Your task to perform on an android device: star an email in the gmail app Image 0: 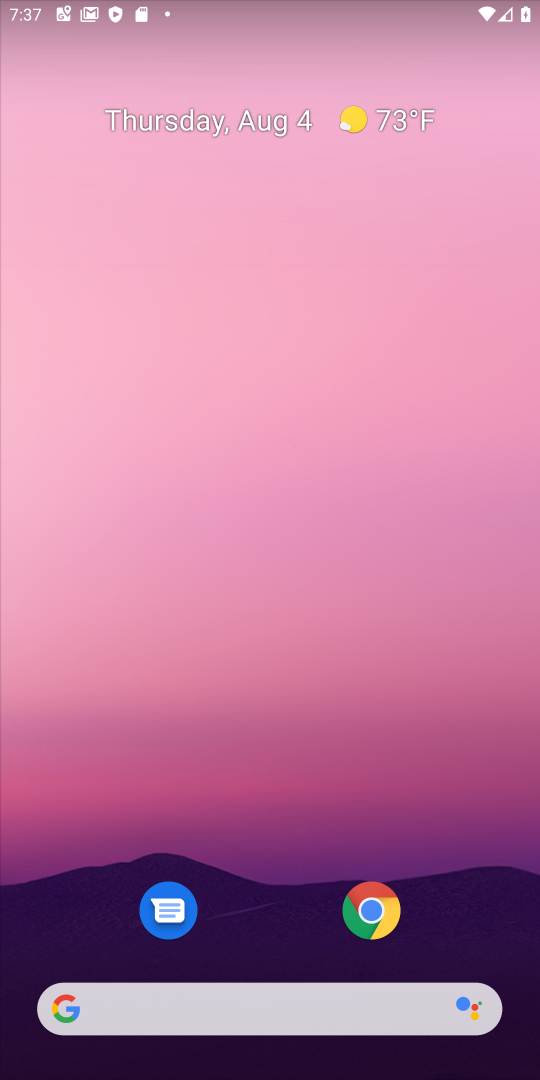
Step 0: drag from (267, 879) to (289, 162)
Your task to perform on an android device: star an email in the gmail app Image 1: 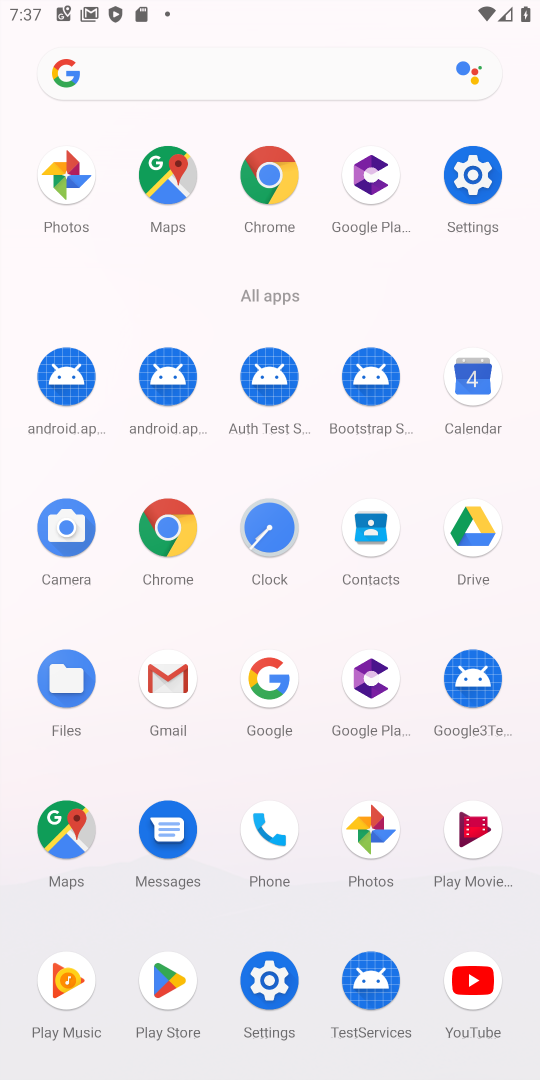
Step 1: click (165, 675)
Your task to perform on an android device: star an email in the gmail app Image 2: 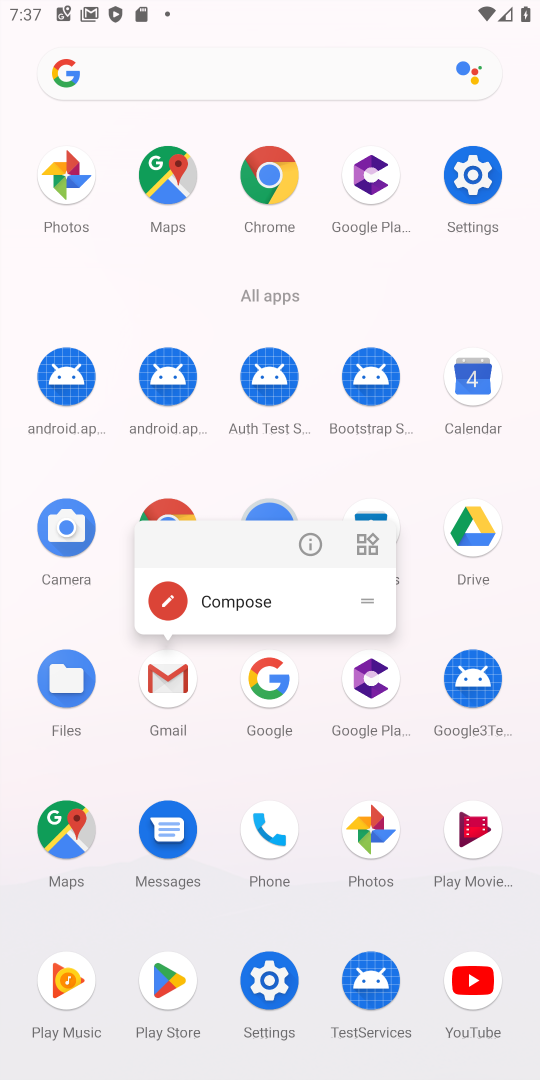
Step 2: click (170, 686)
Your task to perform on an android device: star an email in the gmail app Image 3: 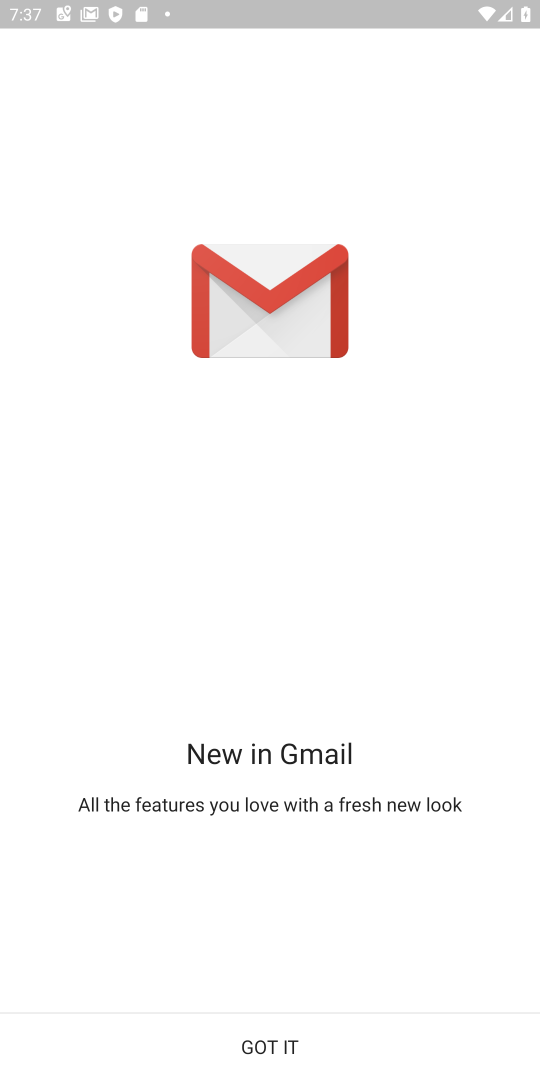
Step 3: click (308, 1040)
Your task to perform on an android device: star an email in the gmail app Image 4: 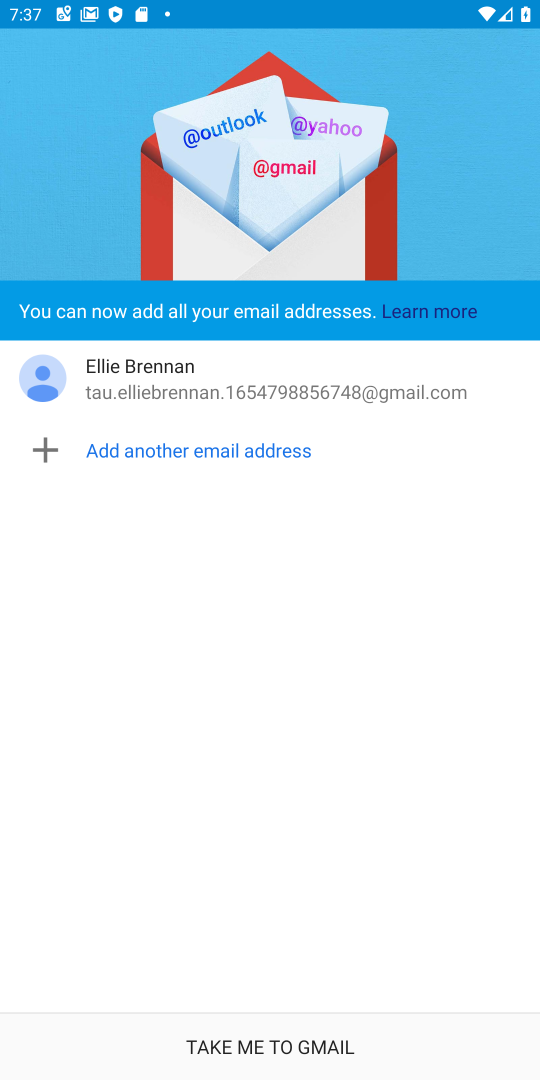
Step 4: click (308, 1040)
Your task to perform on an android device: star an email in the gmail app Image 5: 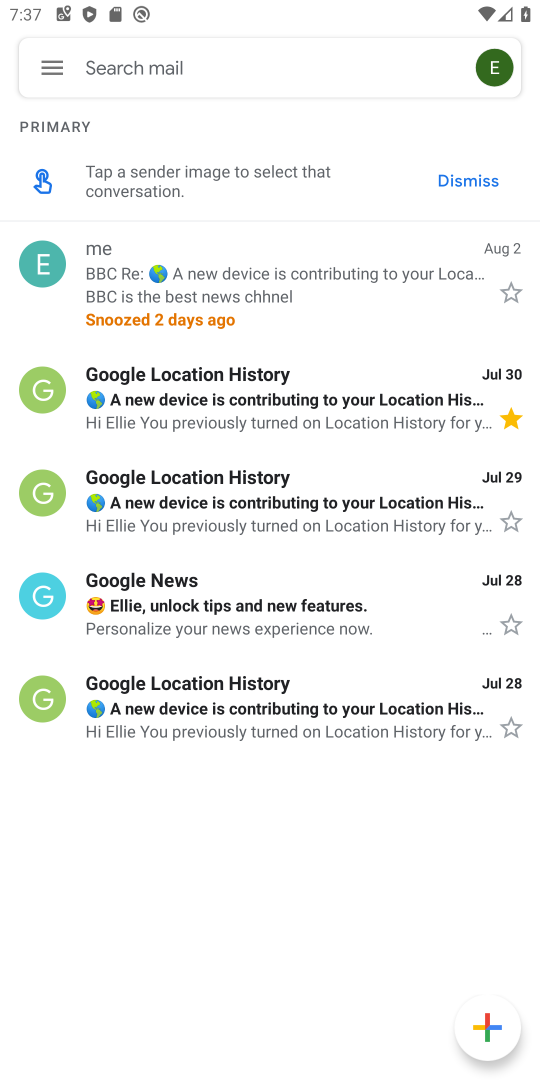
Step 5: click (509, 291)
Your task to perform on an android device: star an email in the gmail app Image 6: 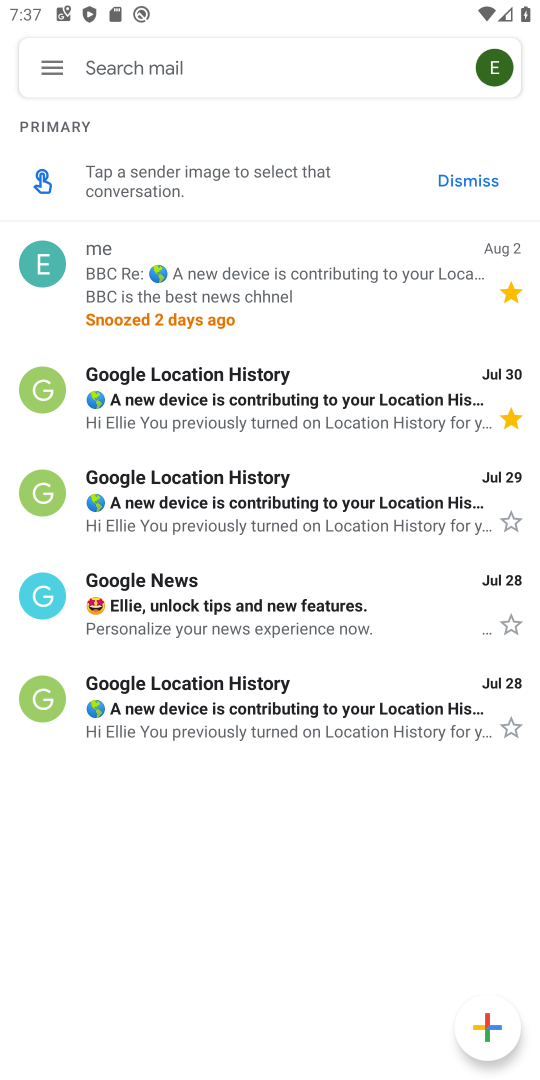
Step 6: task complete